Your task to perform on an android device: Open Youtube and go to "Your channel" Image 0: 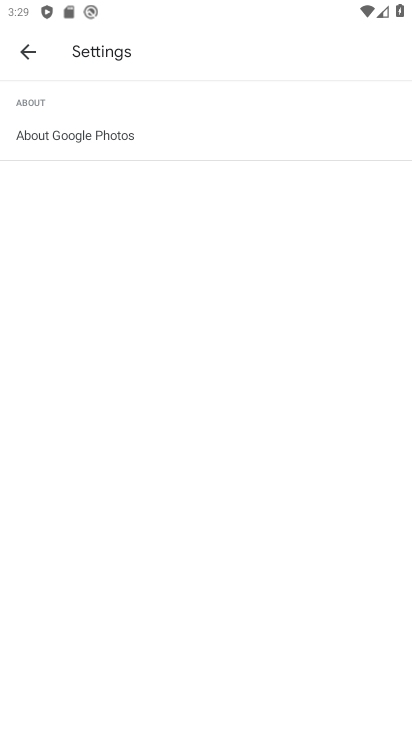
Step 0: press home button
Your task to perform on an android device: Open Youtube and go to "Your channel" Image 1: 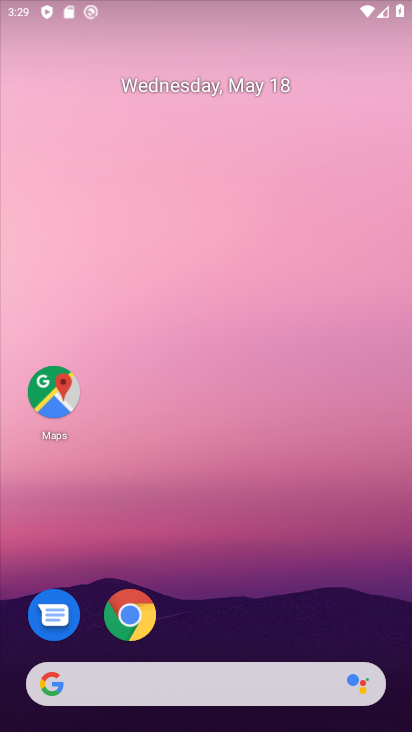
Step 1: drag from (313, 528) to (274, 62)
Your task to perform on an android device: Open Youtube and go to "Your channel" Image 2: 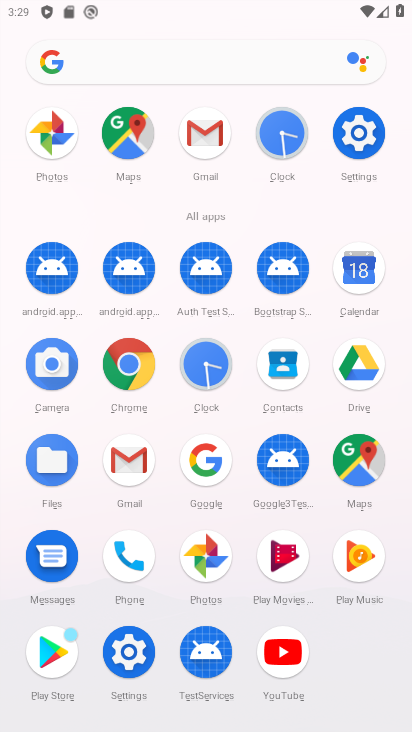
Step 2: click (292, 652)
Your task to perform on an android device: Open Youtube and go to "Your channel" Image 3: 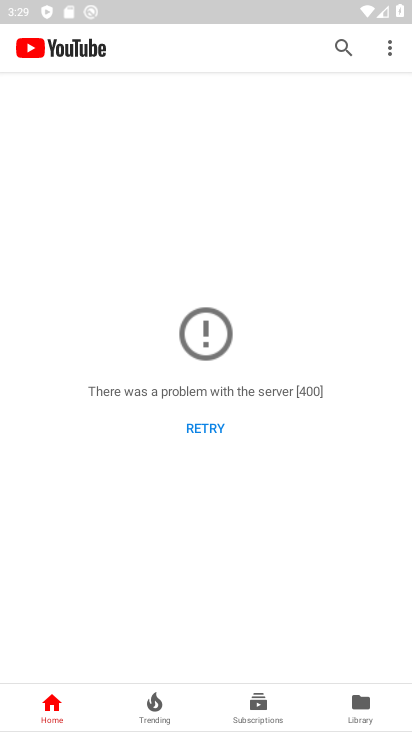
Step 3: task complete